Your task to perform on an android device: Open Chrome and go to settings Image 0: 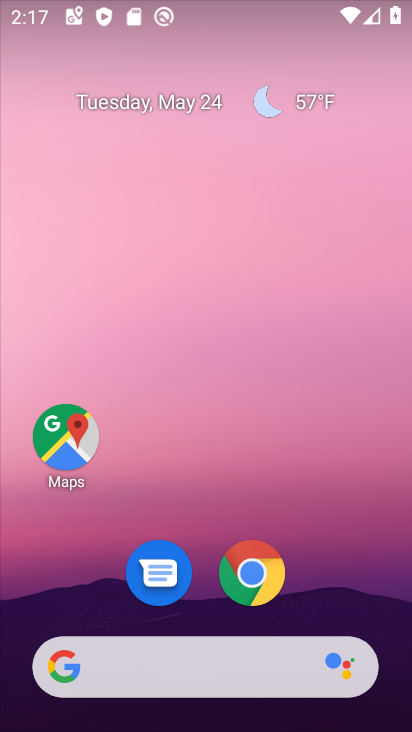
Step 0: click (255, 572)
Your task to perform on an android device: Open Chrome and go to settings Image 1: 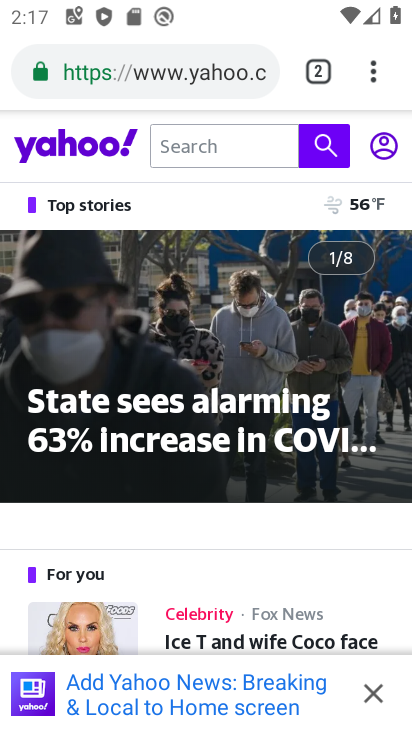
Step 1: click (378, 75)
Your task to perform on an android device: Open Chrome and go to settings Image 2: 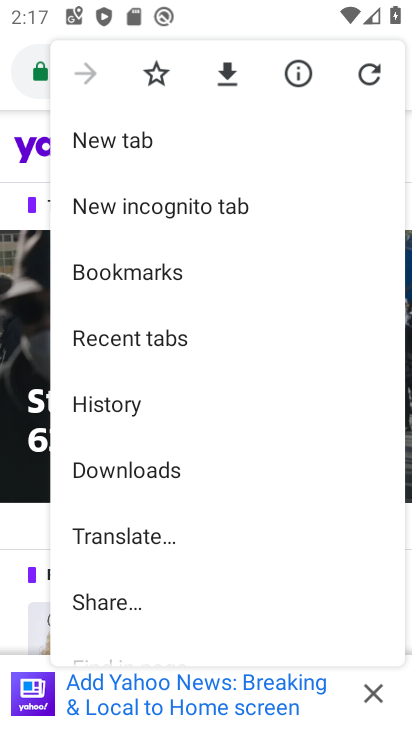
Step 2: drag from (250, 549) to (241, 323)
Your task to perform on an android device: Open Chrome and go to settings Image 3: 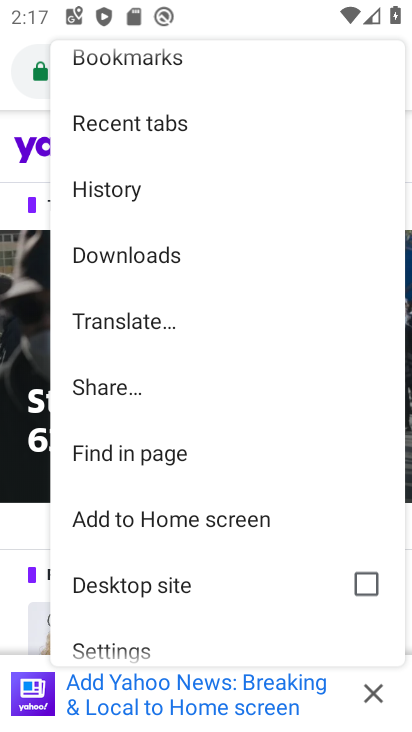
Step 3: click (139, 646)
Your task to perform on an android device: Open Chrome and go to settings Image 4: 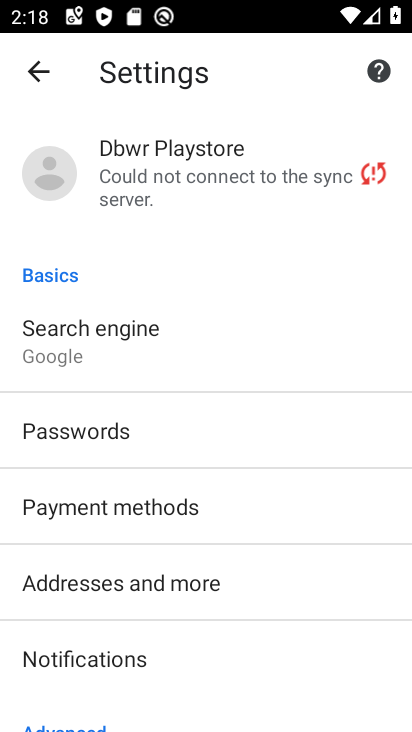
Step 4: task complete